Your task to perform on an android device: Go to location settings Image 0: 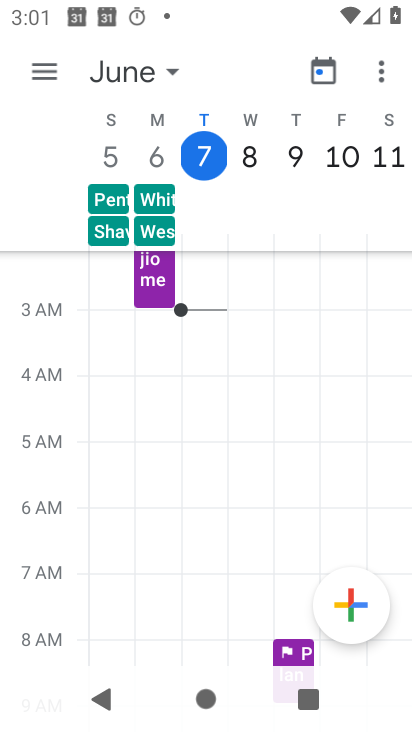
Step 0: press home button
Your task to perform on an android device: Go to location settings Image 1: 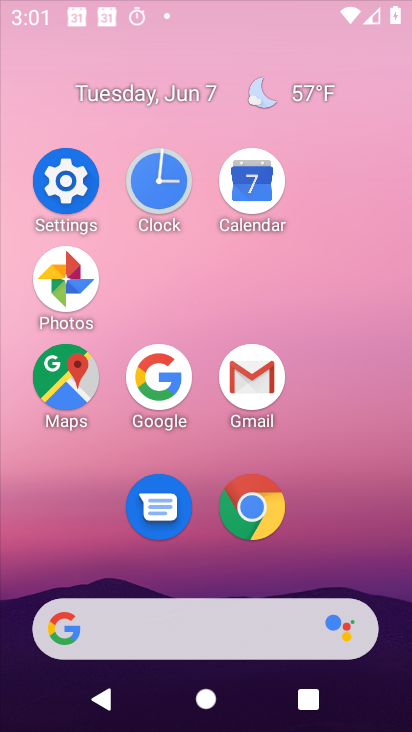
Step 1: click (63, 186)
Your task to perform on an android device: Go to location settings Image 2: 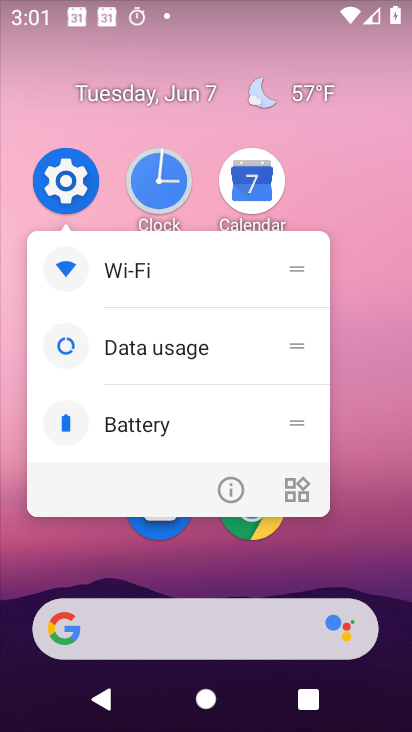
Step 2: click (62, 183)
Your task to perform on an android device: Go to location settings Image 3: 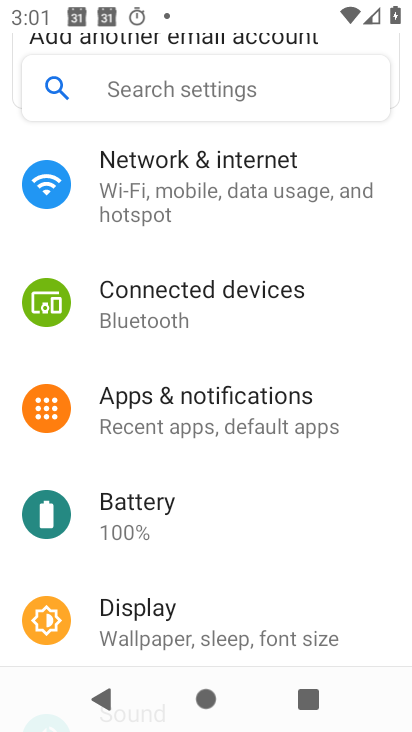
Step 3: drag from (278, 506) to (302, 127)
Your task to perform on an android device: Go to location settings Image 4: 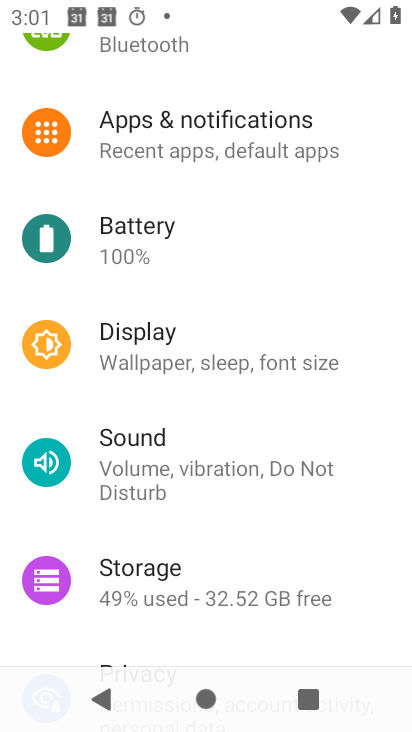
Step 4: drag from (199, 483) to (236, 45)
Your task to perform on an android device: Go to location settings Image 5: 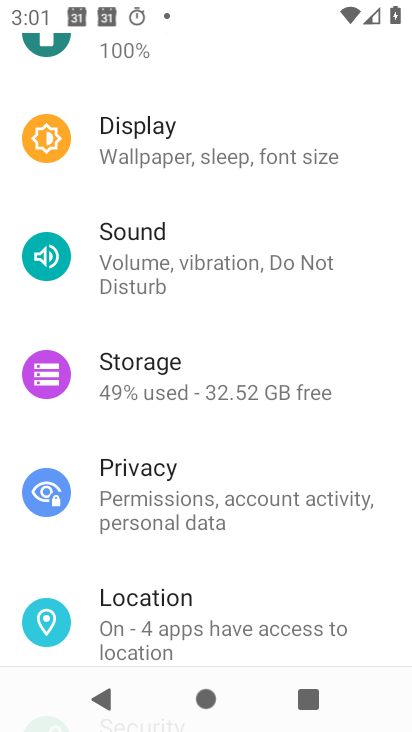
Step 5: click (193, 600)
Your task to perform on an android device: Go to location settings Image 6: 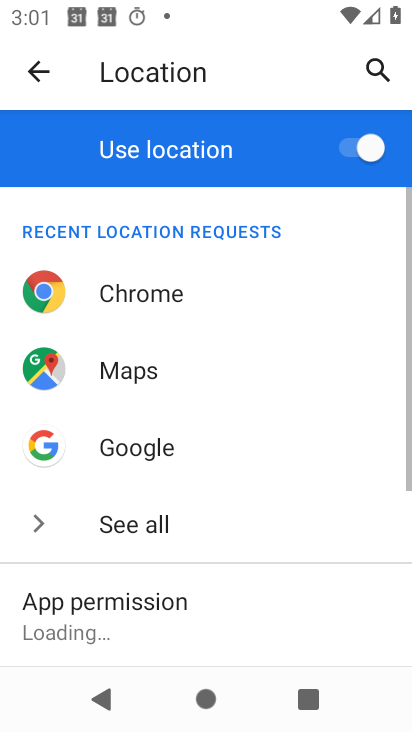
Step 6: task complete